Your task to perform on an android device: Open Google Chrome Image 0: 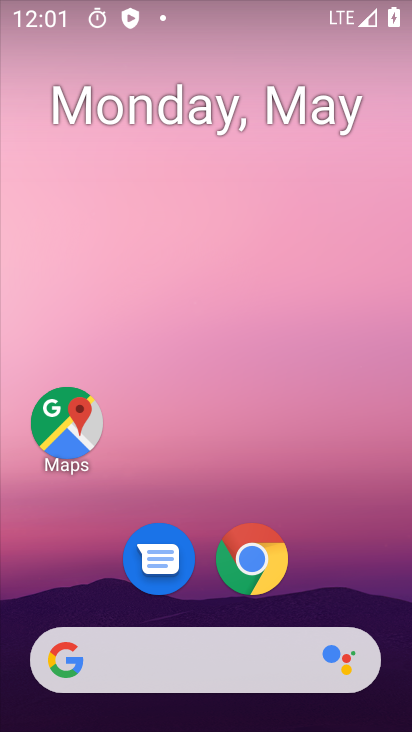
Step 0: drag from (340, 677) to (369, 513)
Your task to perform on an android device: Open Google Chrome Image 1: 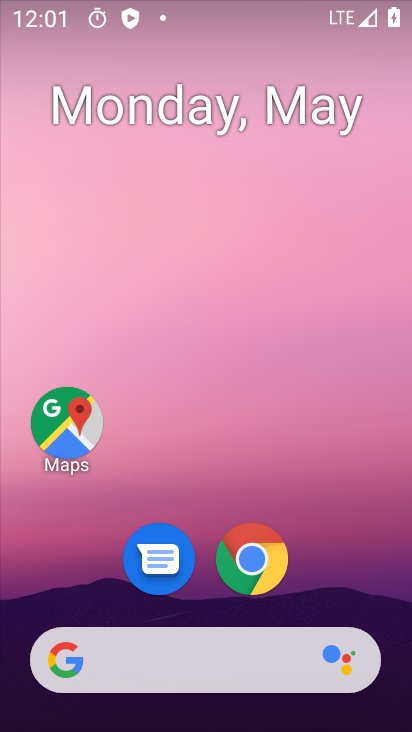
Step 1: click (80, 316)
Your task to perform on an android device: Open Google Chrome Image 2: 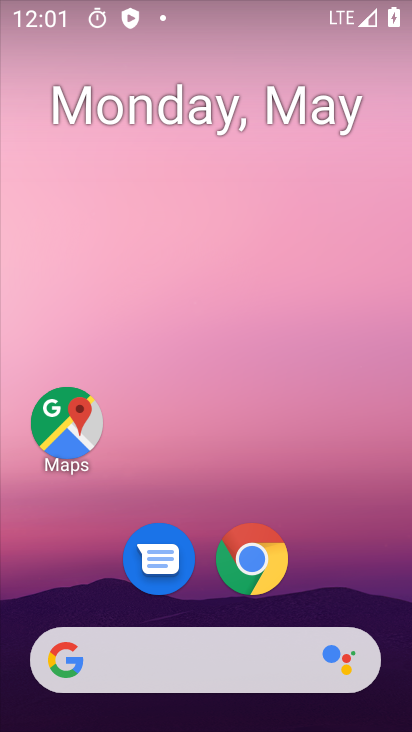
Step 2: drag from (259, 626) to (393, 131)
Your task to perform on an android device: Open Google Chrome Image 3: 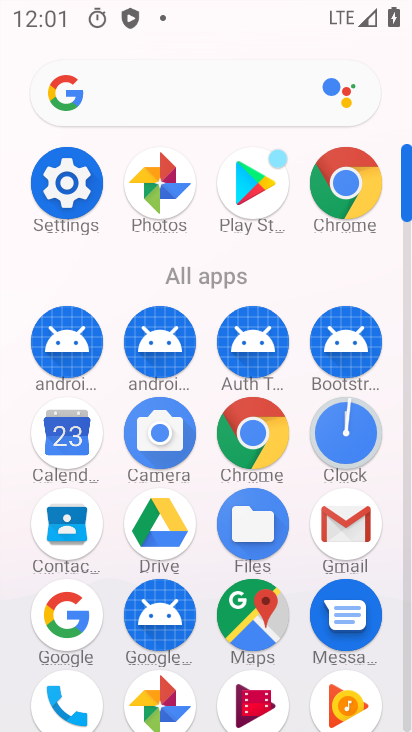
Step 3: click (71, 429)
Your task to perform on an android device: Open Google Chrome Image 4: 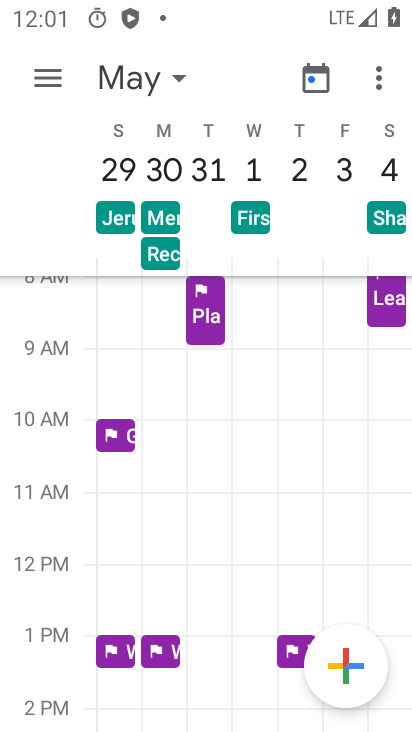
Step 4: press back button
Your task to perform on an android device: Open Google Chrome Image 5: 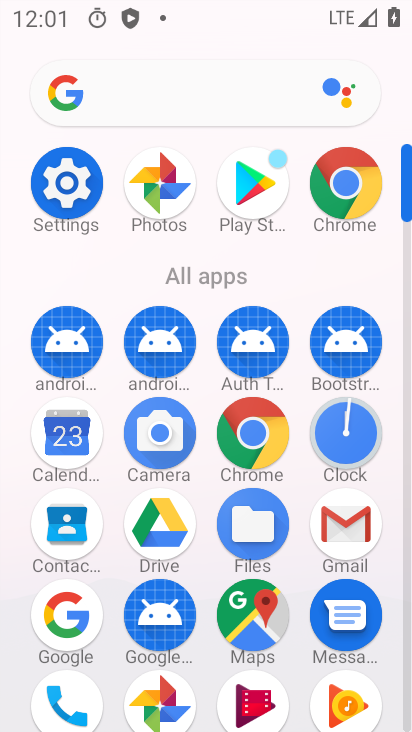
Step 5: click (49, 520)
Your task to perform on an android device: Open Google Chrome Image 6: 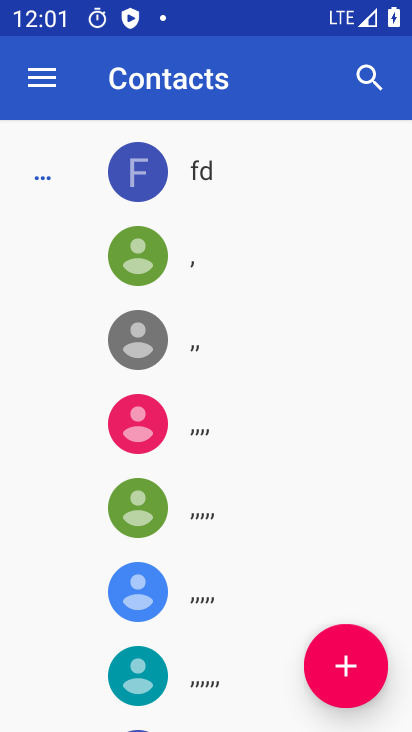
Step 6: click (357, 656)
Your task to perform on an android device: Open Google Chrome Image 7: 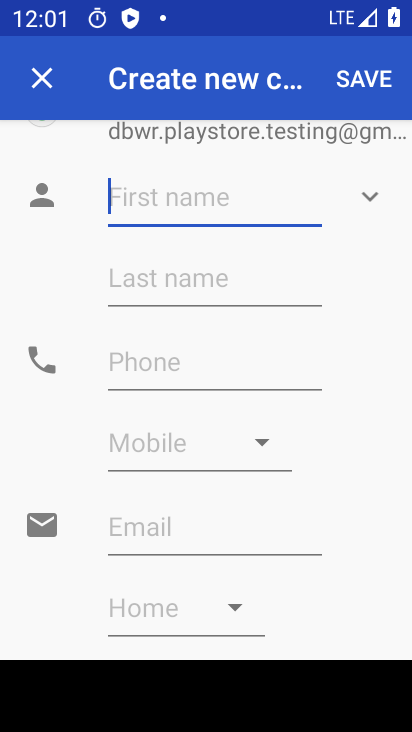
Step 7: type "gfdghfh"
Your task to perform on an android device: Open Google Chrome Image 8: 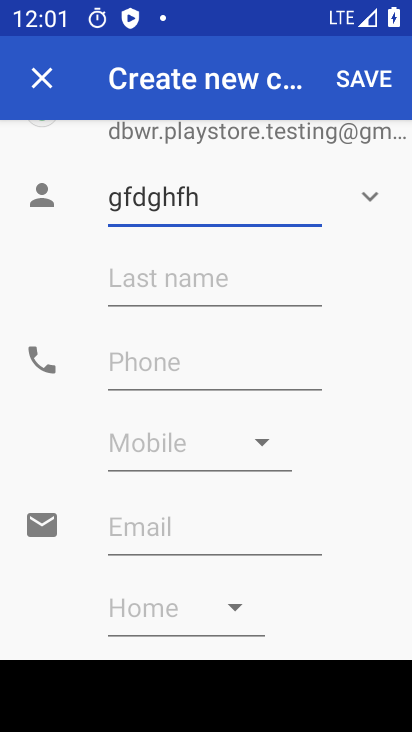
Step 8: click (195, 370)
Your task to perform on an android device: Open Google Chrome Image 9: 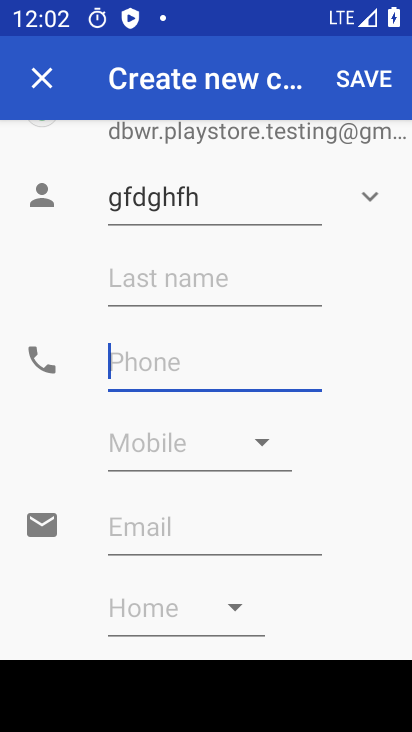
Step 9: type "9897876767"
Your task to perform on an android device: Open Google Chrome Image 10: 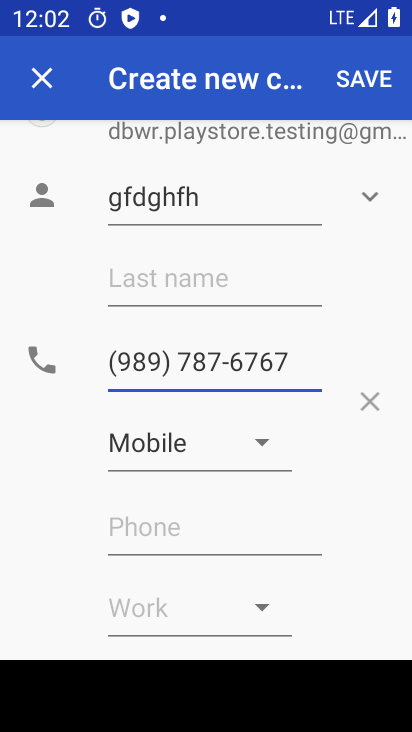
Step 10: click (370, 72)
Your task to perform on an android device: Open Google Chrome Image 11: 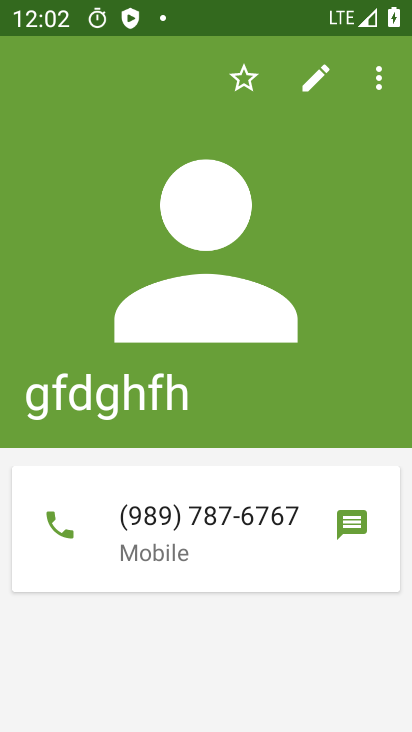
Step 11: task complete